Your task to perform on an android device: add a contact in the contacts app Image 0: 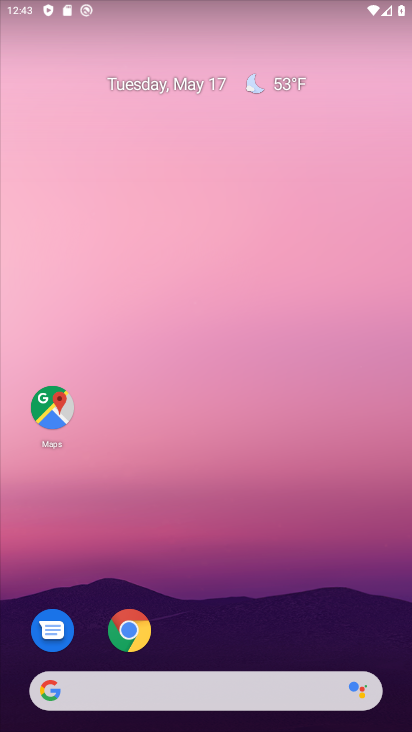
Step 0: drag from (221, 645) to (234, 293)
Your task to perform on an android device: add a contact in the contacts app Image 1: 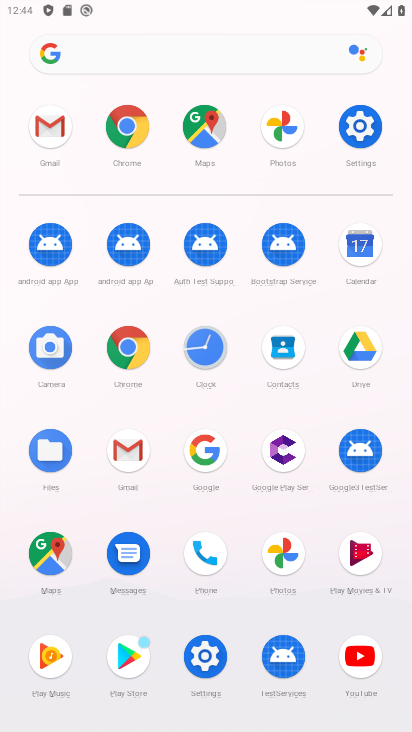
Step 1: click (278, 377)
Your task to perform on an android device: add a contact in the contacts app Image 2: 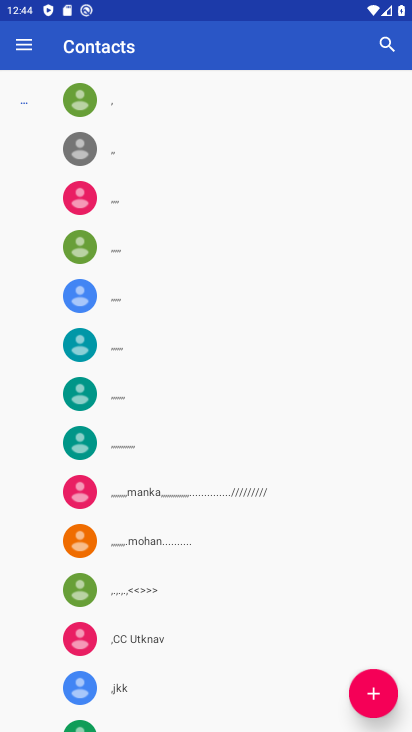
Step 2: click (384, 692)
Your task to perform on an android device: add a contact in the contacts app Image 3: 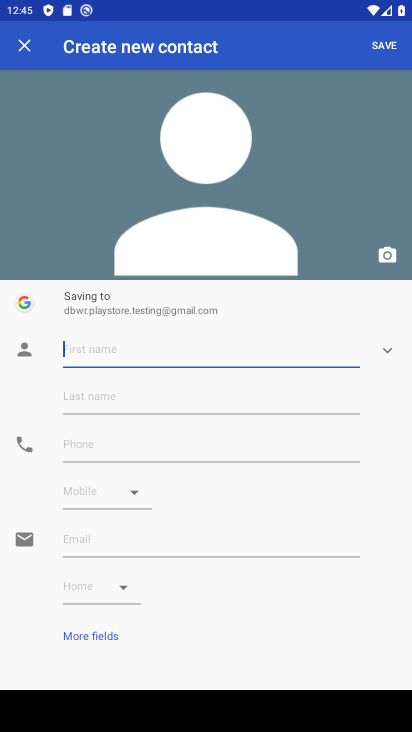
Step 3: type "hjhvk"
Your task to perform on an android device: add a contact in the contacts app Image 4: 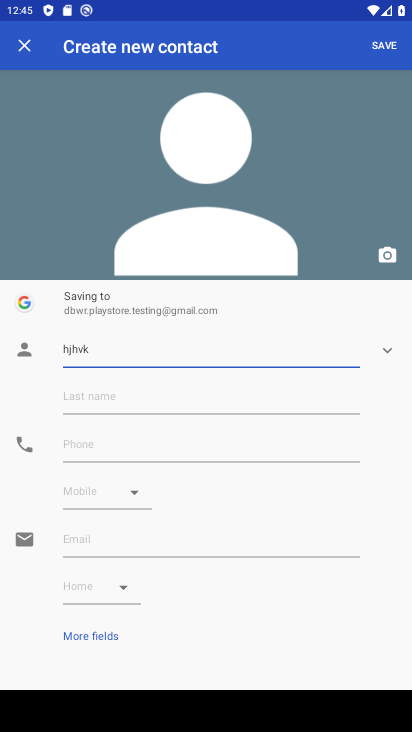
Step 4: click (126, 446)
Your task to perform on an android device: add a contact in the contacts app Image 5: 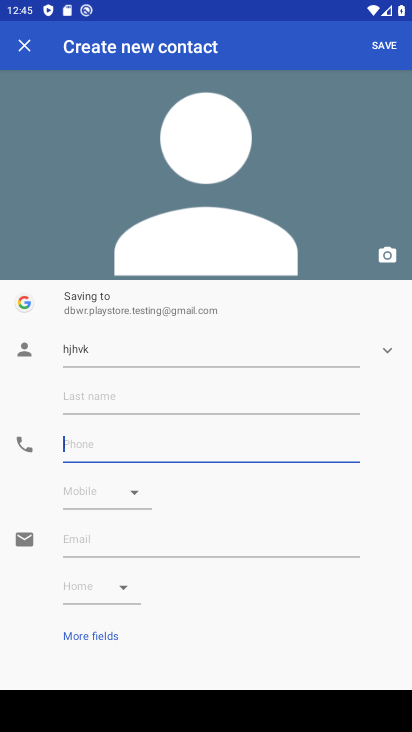
Step 5: type "9868674654"
Your task to perform on an android device: add a contact in the contacts app Image 6: 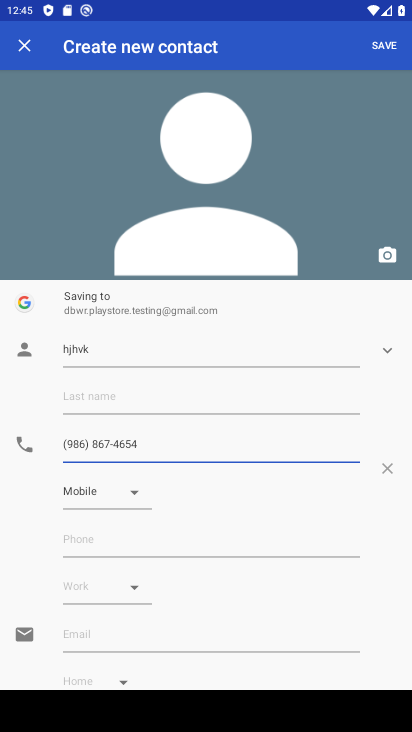
Step 6: click (391, 44)
Your task to perform on an android device: add a contact in the contacts app Image 7: 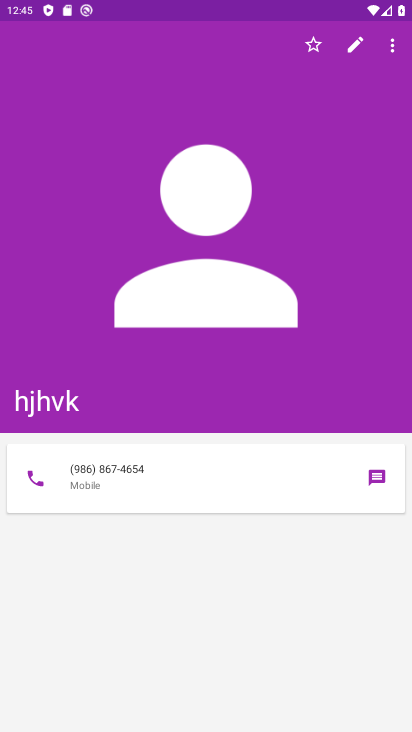
Step 7: task complete